Your task to perform on an android device: Open the calendar and show me this week's events? Image 0: 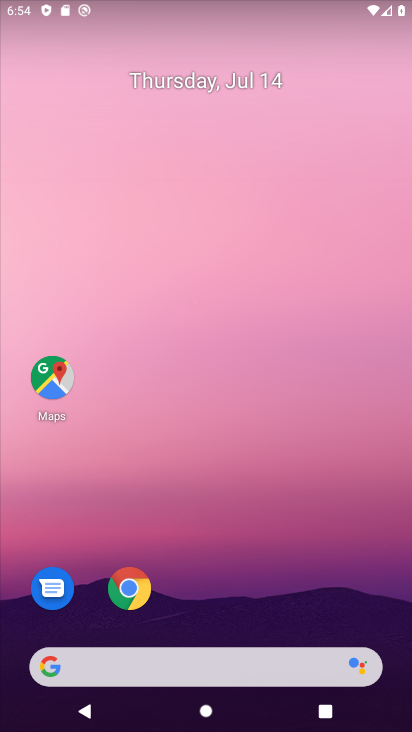
Step 0: drag from (403, 642) to (250, 42)
Your task to perform on an android device: Open the calendar and show me this week's events? Image 1: 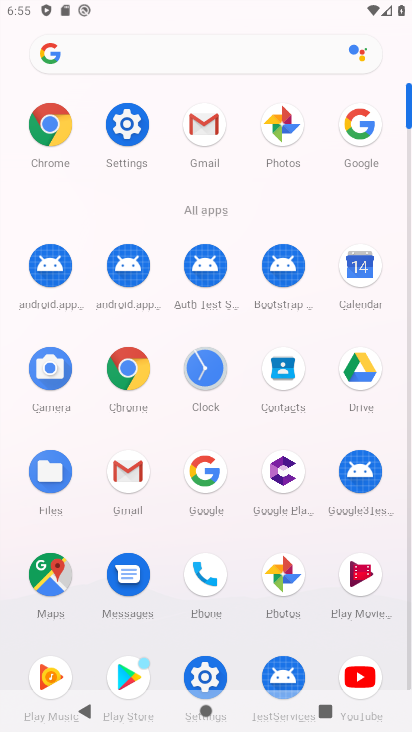
Step 1: click (353, 276)
Your task to perform on an android device: Open the calendar and show me this week's events? Image 2: 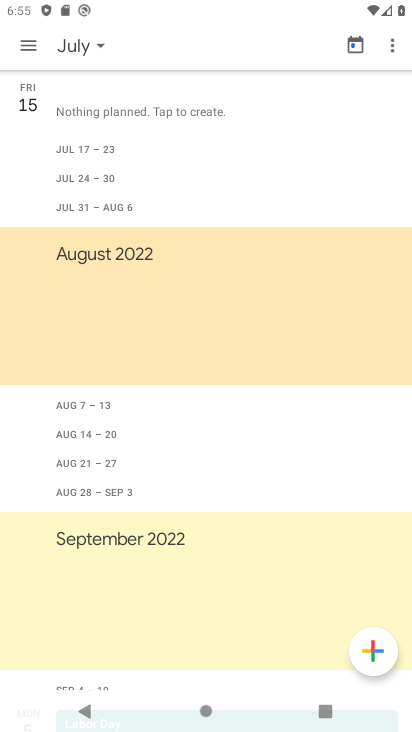
Step 2: click (81, 40)
Your task to perform on an android device: Open the calendar and show me this week's events? Image 3: 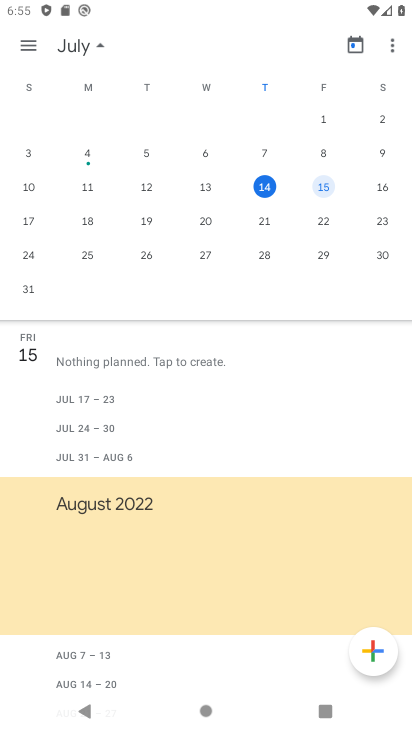
Step 3: click (29, 218)
Your task to perform on an android device: Open the calendar and show me this week's events? Image 4: 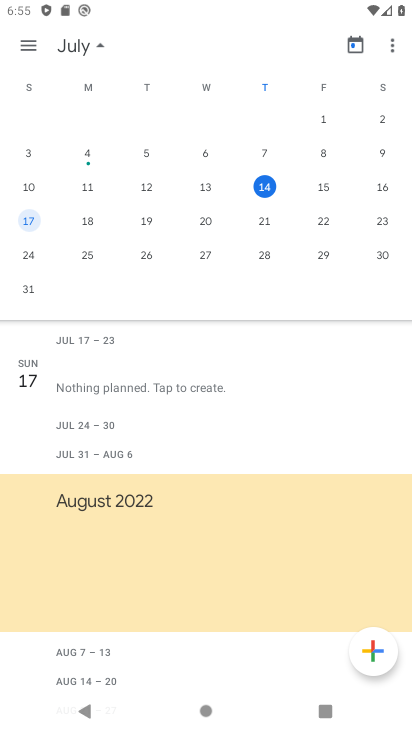
Step 4: click (119, 390)
Your task to perform on an android device: Open the calendar and show me this week's events? Image 5: 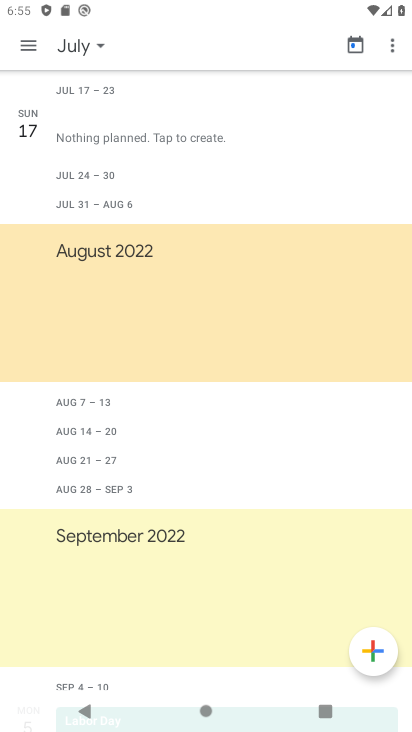
Step 5: task complete